Your task to perform on an android device: Go to privacy settings Image 0: 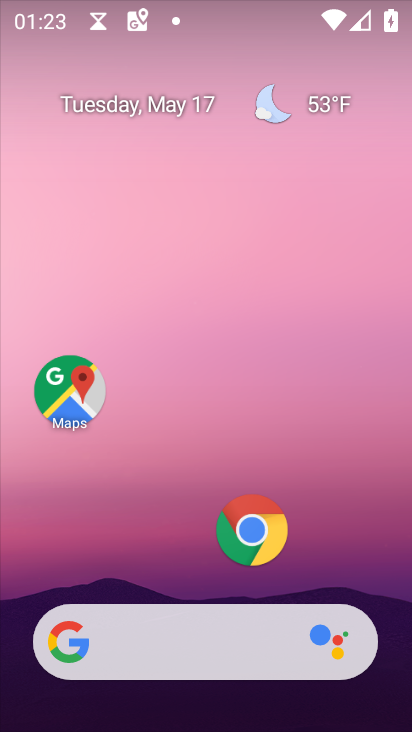
Step 0: drag from (357, 499) to (356, 90)
Your task to perform on an android device: Go to privacy settings Image 1: 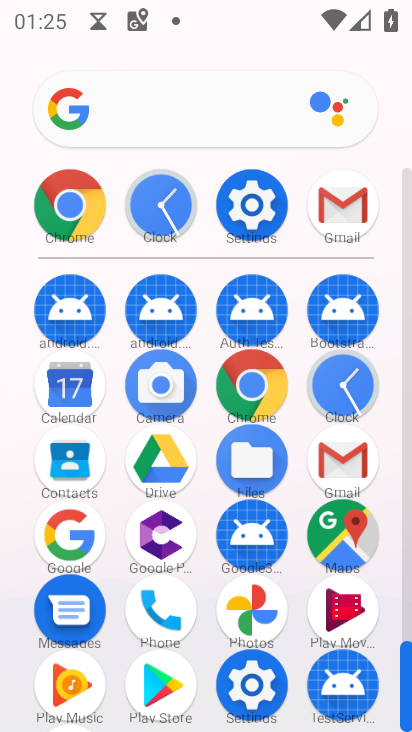
Step 1: click (266, 199)
Your task to perform on an android device: Go to privacy settings Image 2: 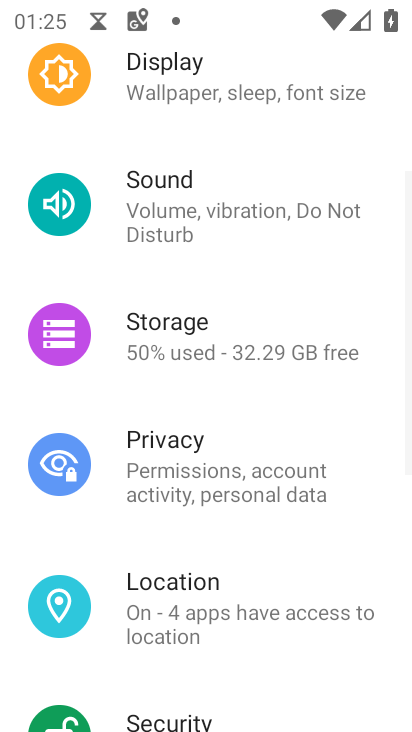
Step 2: drag from (270, 578) to (268, 269)
Your task to perform on an android device: Go to privacy settings Image 3: 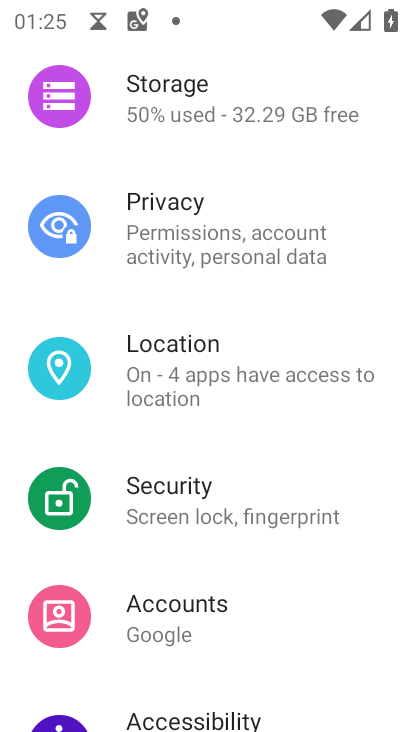
Step 3: drag from (263, 666) to (249, 247)
Your task to perform on an android device: Go to privacy settings Image 4: 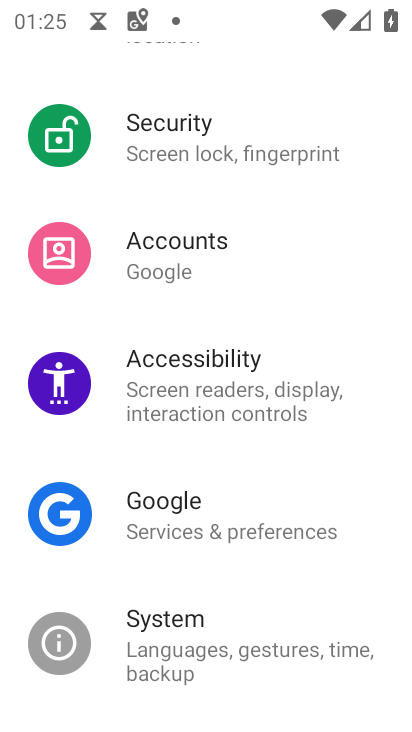
Step 4: drag from (257, 206) to (293, 524)
Your task to perform on an android device: Go to privacy settings Image 5: 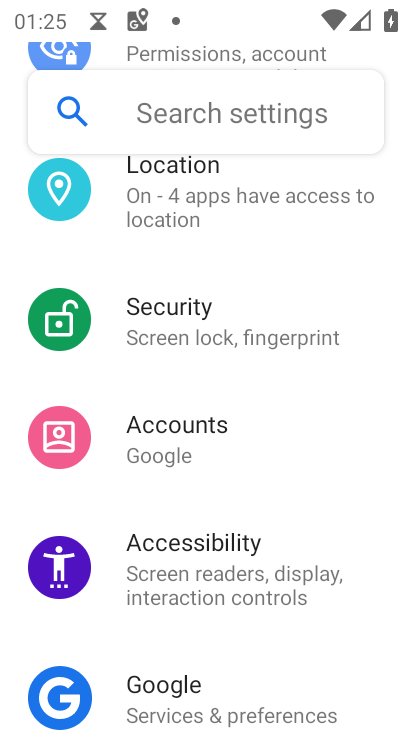
Step 5: drag from (337, 300) to (357, 619)
Your task to perform on an android device: Go to privacy settings Image 6: 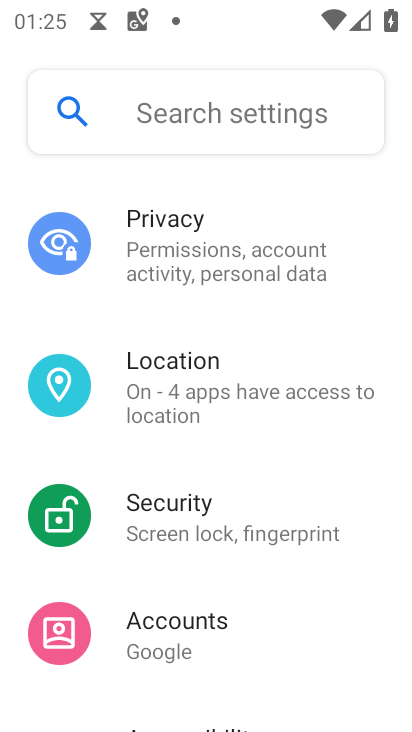
Step 6: click (235, 238)
Your task to perform on an android device: Go to privacy settings Image 7: 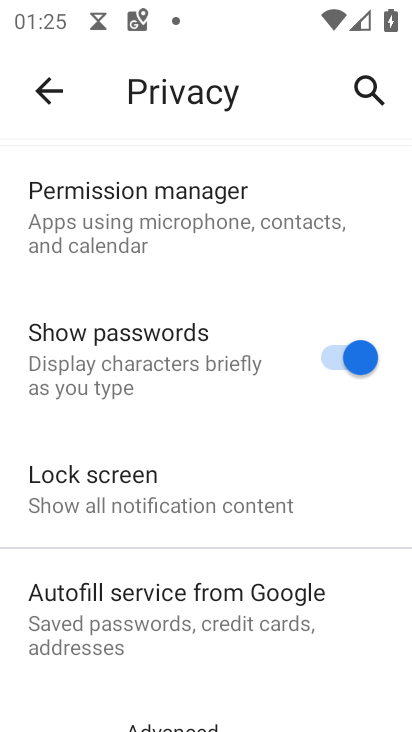
Step 7: task complete